Your task to perform on an android device: toggle data saver in the chrome app Image 0: 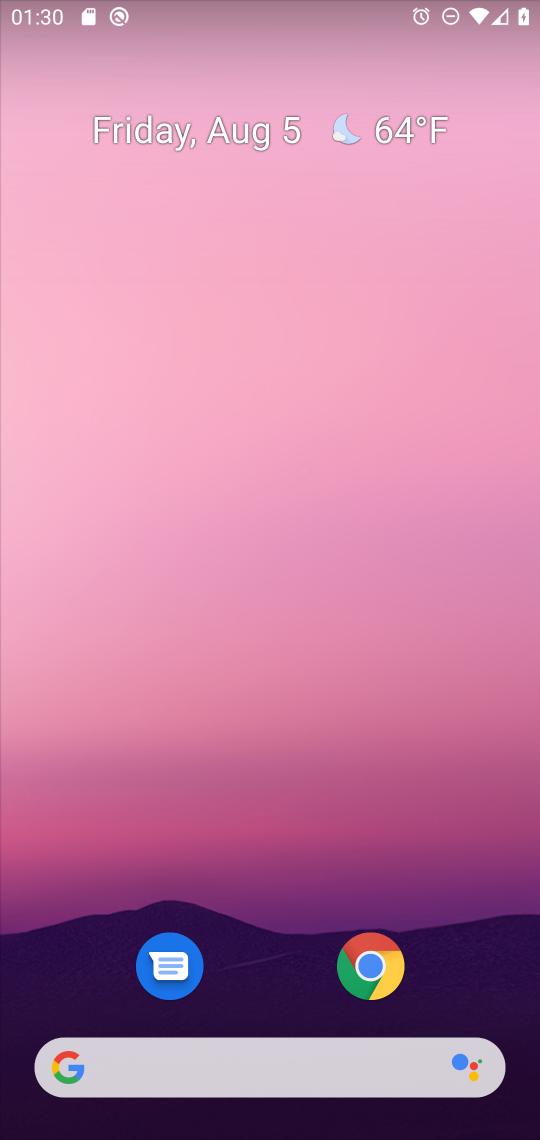
Step 0: click (370, 965)
Your task to perform on an android device: toggle data saver in the chrome app Image 1: 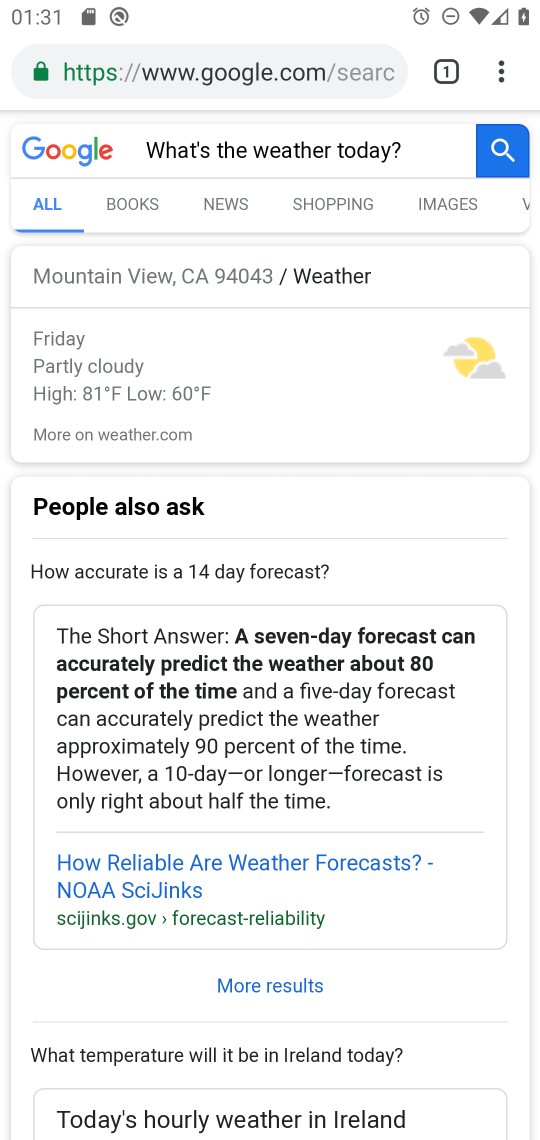
Step 1: click (501, 57)
Your task to perform on an android device: toggle data saver in the chrome app Image 2: 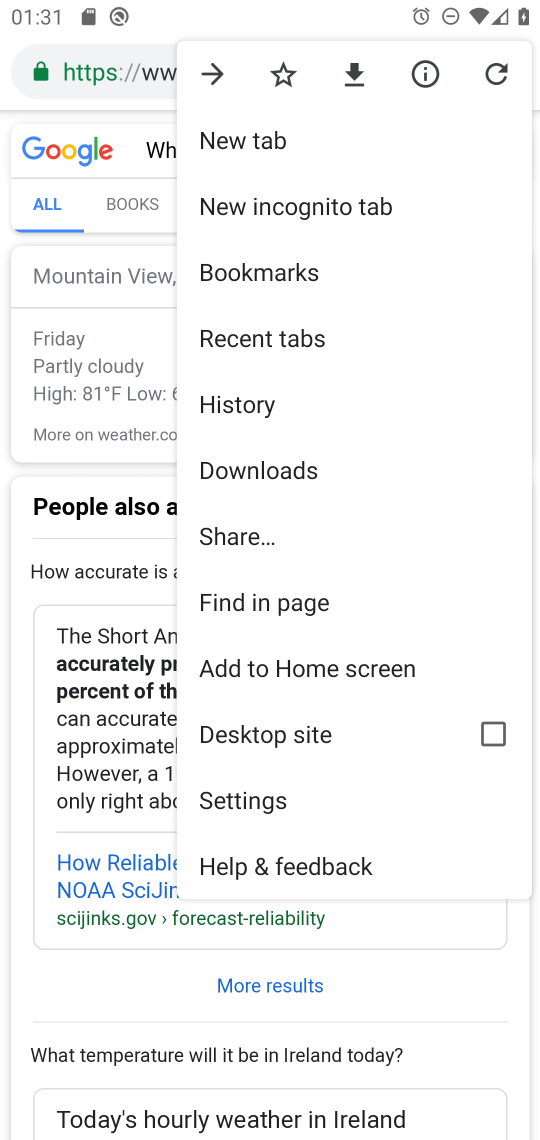
Step 2: click (269, 794)
Your task to perform on an android device: toggle data saver in the chrome app Image 3: 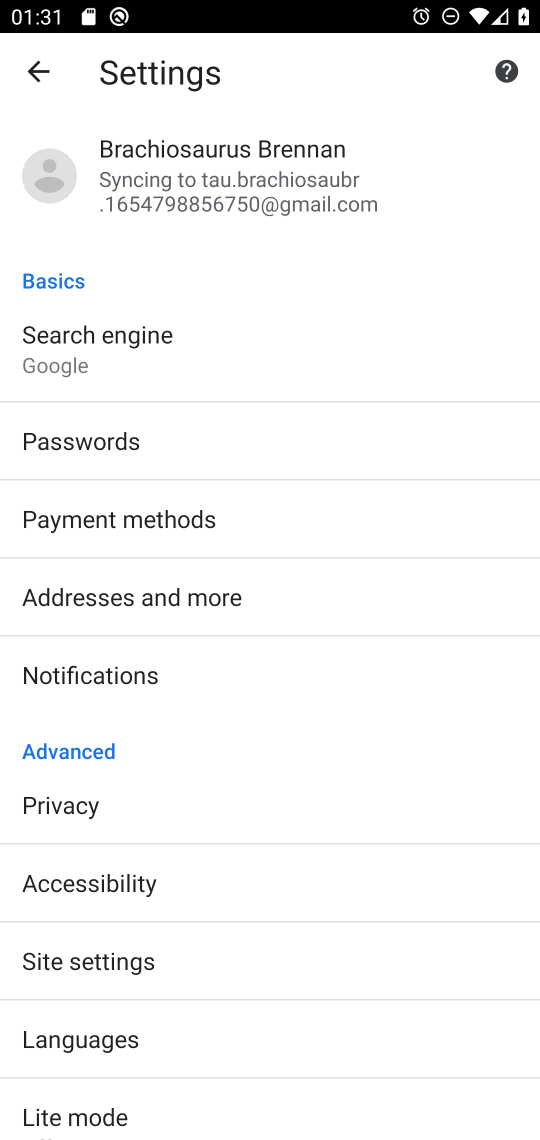
Step 3: click (236, 1114)
Your task to perform on an android device: toggle data saver in the chrome app Image 4: 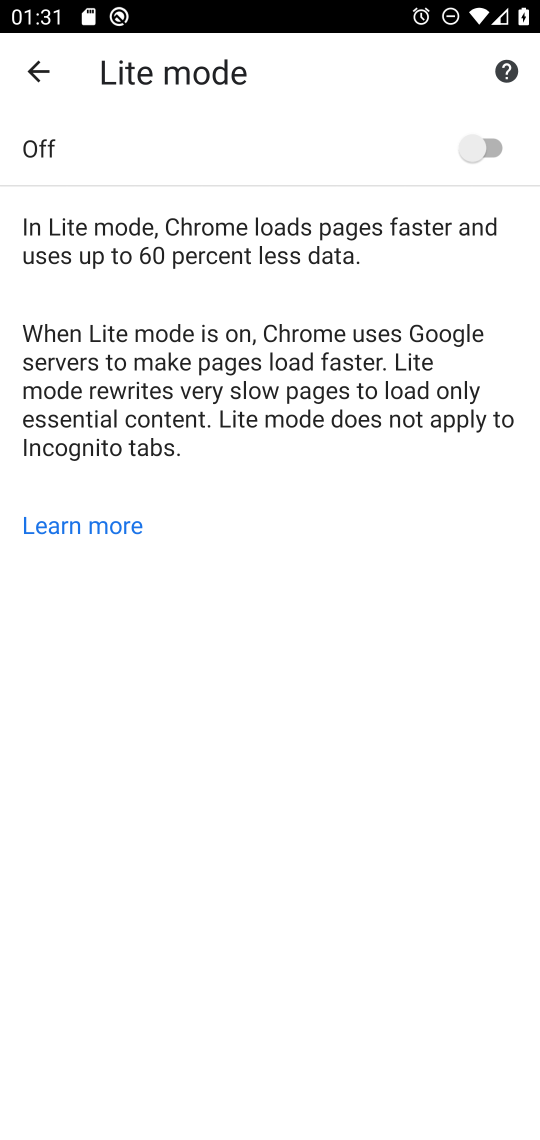
Step 4: click (485, 136)
Your task to perform on an android device: toggle data saver in the chrome app Image 5: 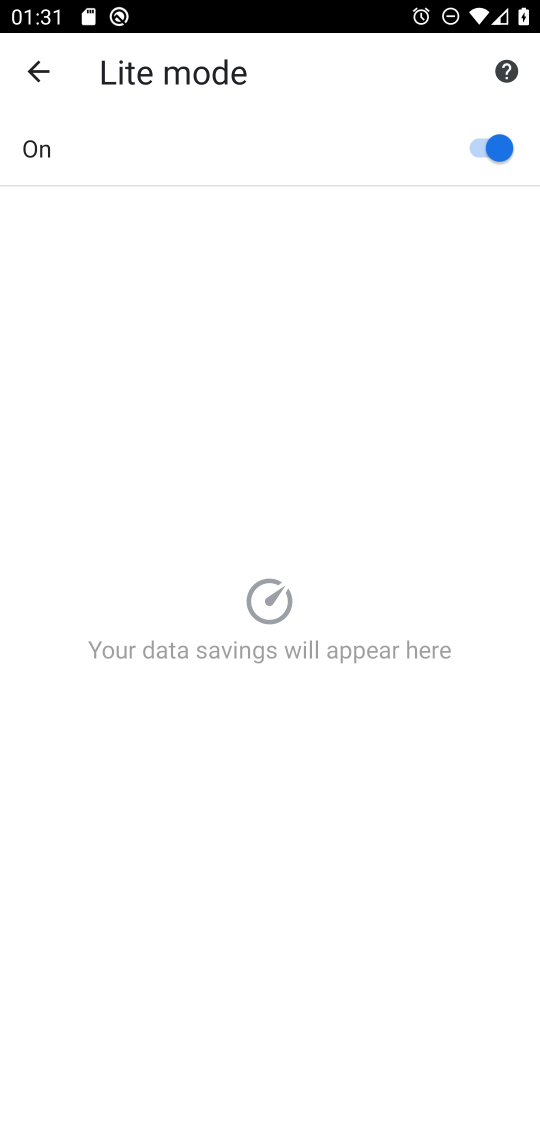
Step 5: task complete